Your task to perform on an android device: Go to Yahoo.com Image 0: 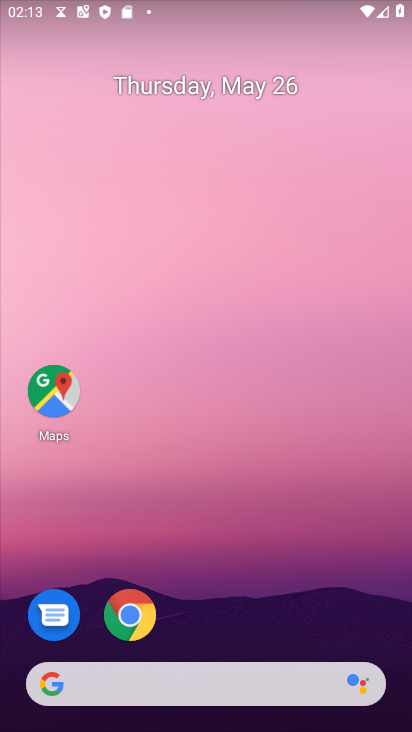
Step 0: click (127, 605)
Your task to perform on an android device: Go to Yahoo.com Image 1: 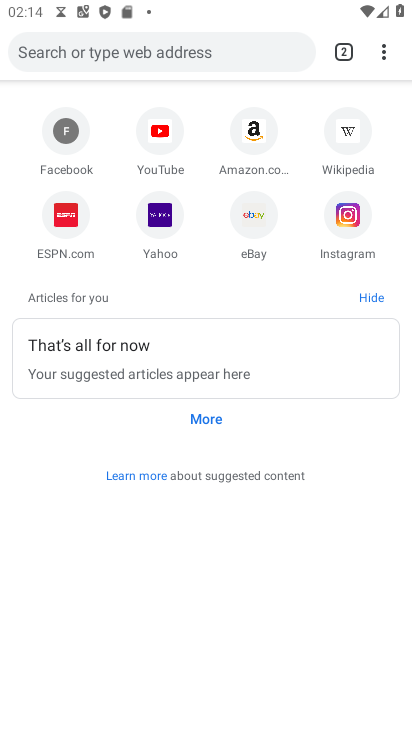
Step 1: click (159, 208)
Your task to perform on an android device: Go to Yahoo.com Image 2: 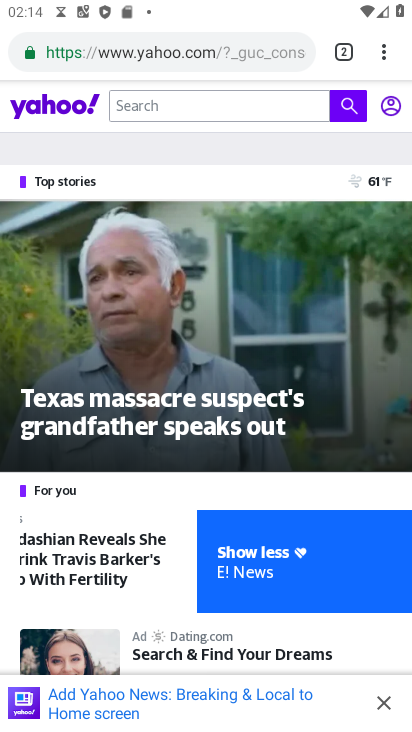
Step 2: task complete